Your task to perform on an android device: Open Yahoo.com Image 0: 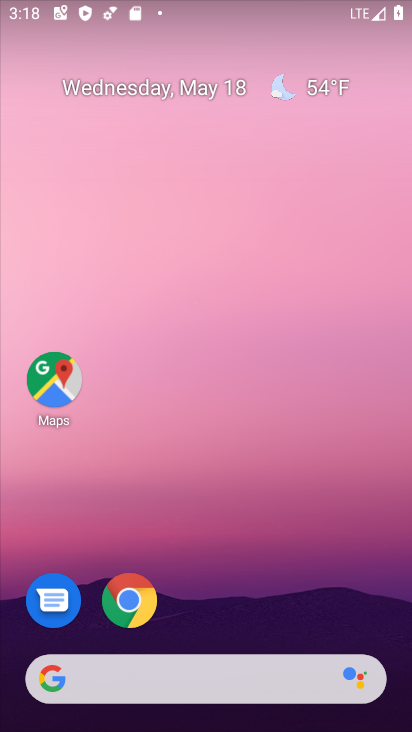
Step 0: press home button
Your task to perform on an android device: Open Yahoo.com Image 1: 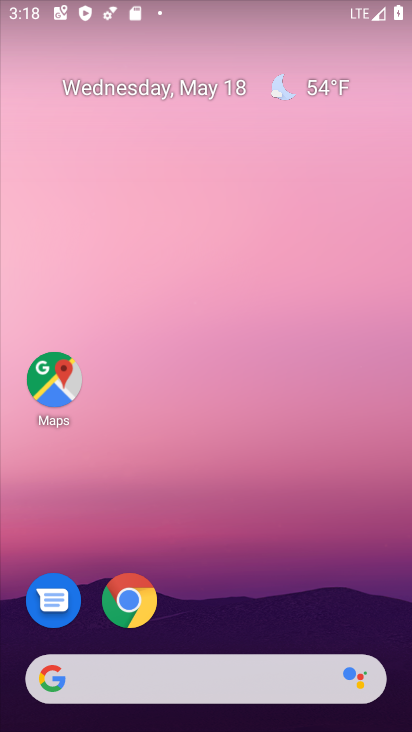
Step 1: click (133, 591)
Your task to perform on an android device: Open Yahoo.com Image 2: 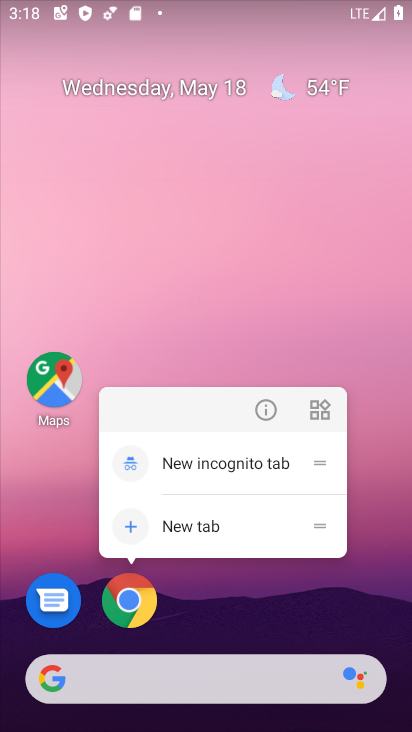
Step 2: click (149, 597)
Your task to perform on an android device: Open Yahoo.com Image 3: 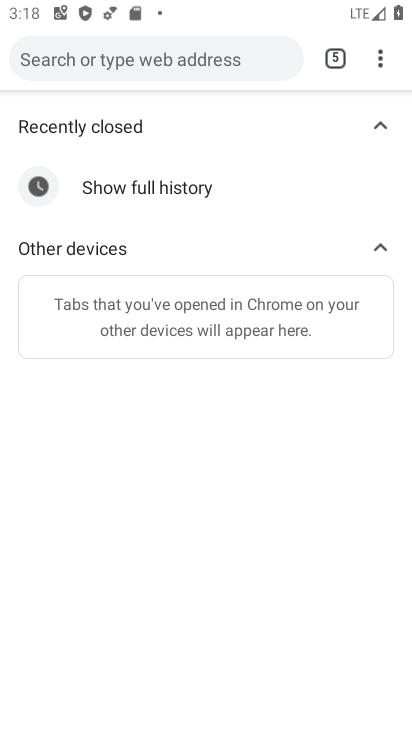
Step 3: drag from (379, 59) to (288, 121)
Your task to perform on an android device: Open Yahoo.com Image 4: 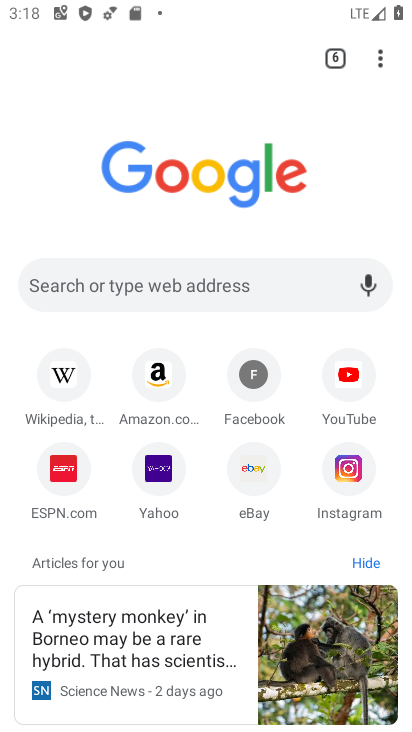
Step 4: click (155, 460)
Your task to perform on an android device: Open Yahoo.com Image 5: 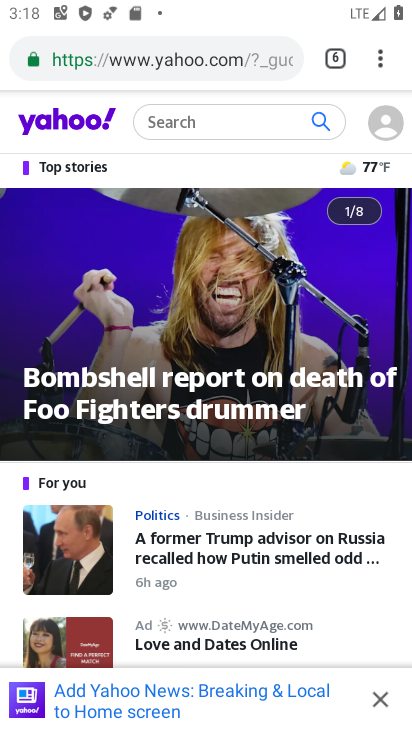
Step 5: task complete